Your task to perform on an android device: Open Reddit.com Image 0: 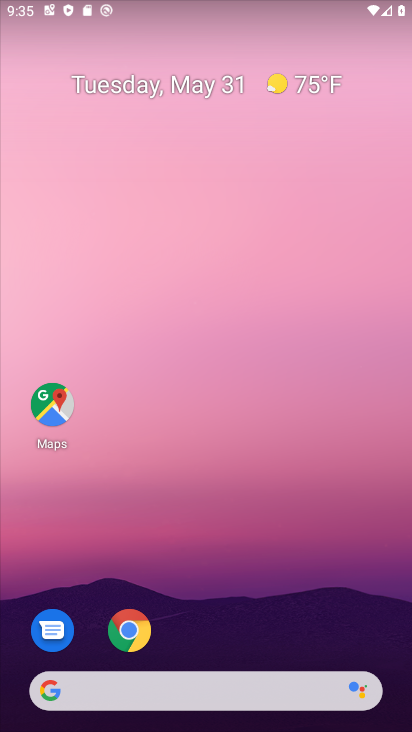
Step 0: drag from (216, 663) to (231, 232)
Your task to perform on an android device: Open Reddit.com Image 1: 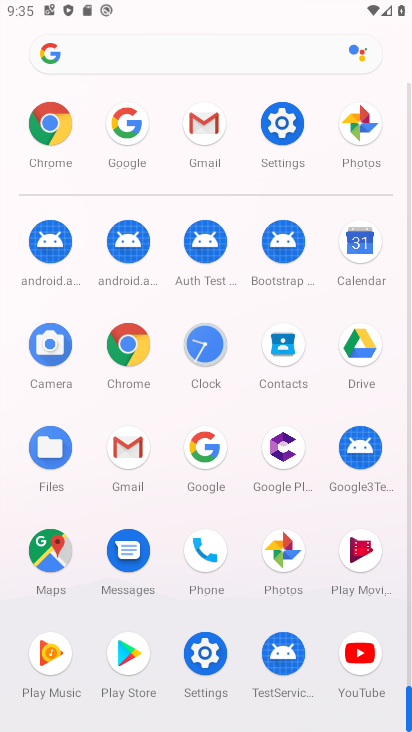
Step 1: click (61, 169)
Your task to perform on an android device: Open Reddit.com Image 2: 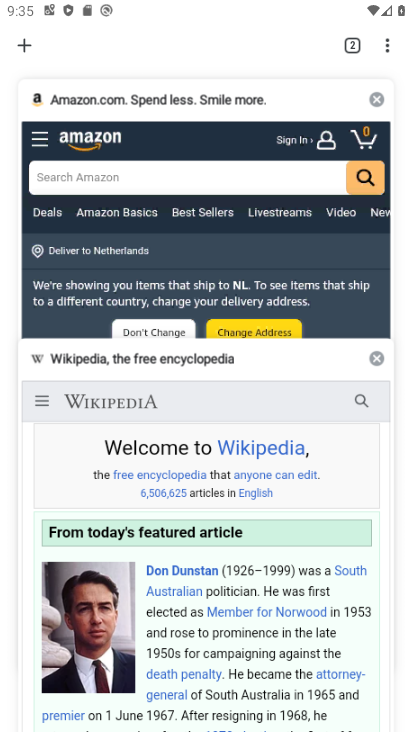
Step 2: click (249, 410)
Your task to perform on an android device: Open Reddit.com Image 3: 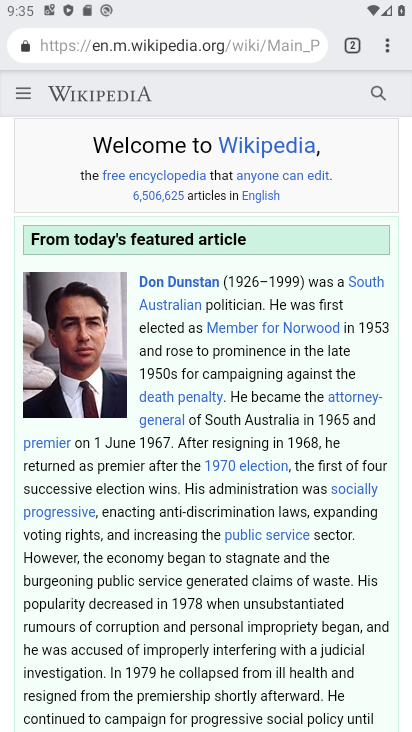
Step 3: click (216, 58)
Your task to perform on an android device: Open Reddit.com Image 4: 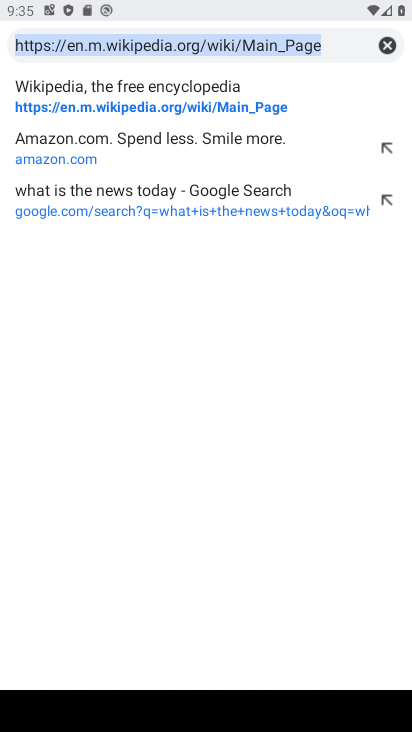
Step 4: type "reddit"
Your task to perform on an android device: Open Reddit.com Image 5: 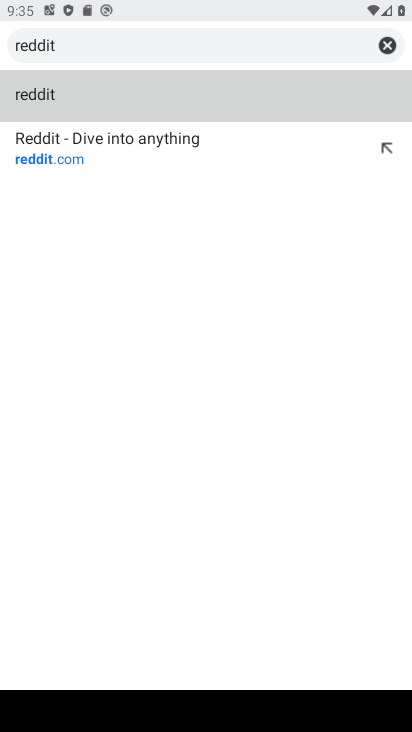
Step 5: click (205, 157)
Your task to perform on an android device: Open Reddit.com Image 6: 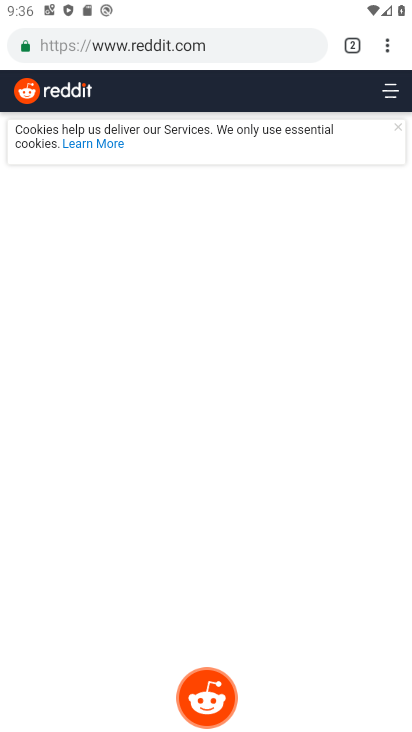
Step 6: task complete